Your task to perform on an android device: open app "Venmo" Image 0: 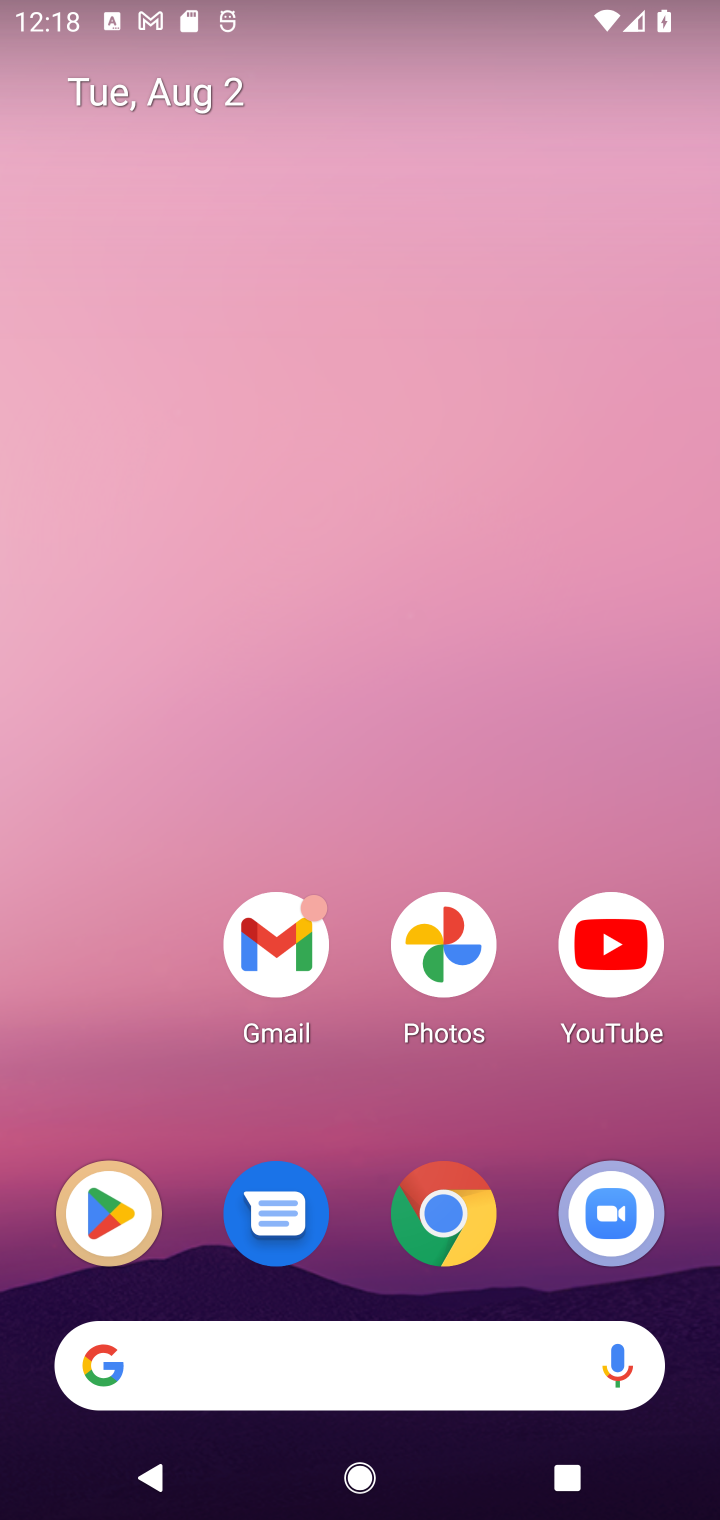
Step 0: click (88, 1208)
Your task to perform on an android device: open app "Venmo" Image 1: 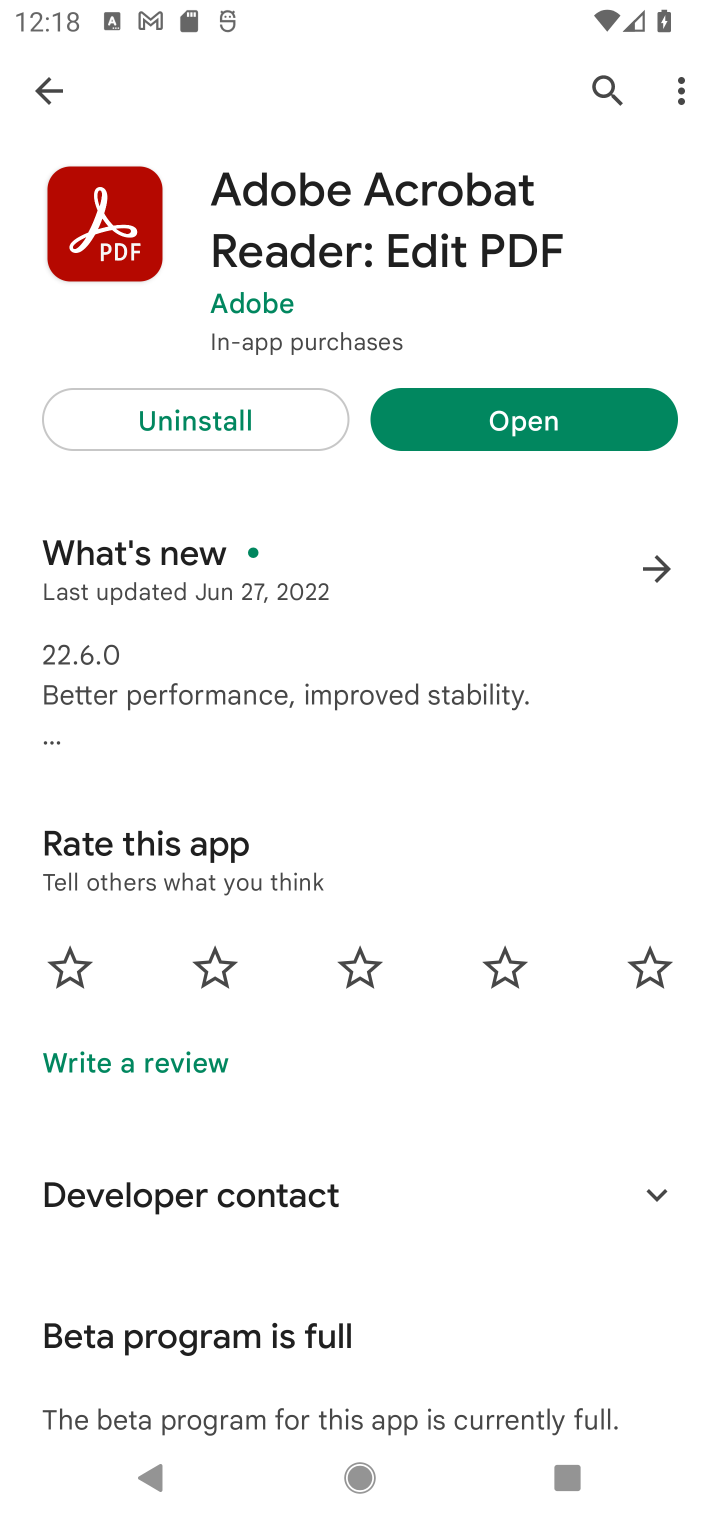
Step 1: click (52, 79)
Your task to perform on an android device: open app "Venmo" Image 2: 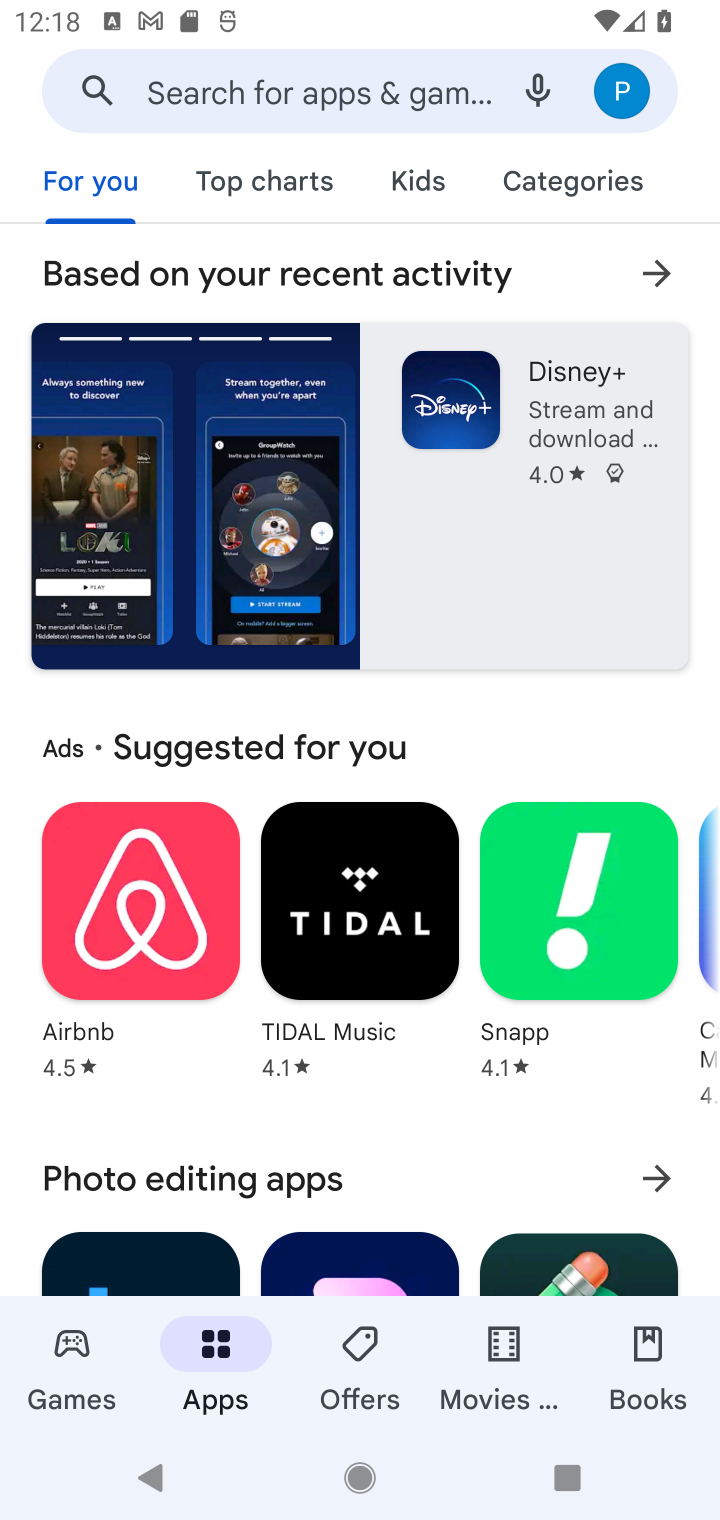
Step 2: click (270, 90)
Your task to perform on an android device: open app "Venmo" Image 3: 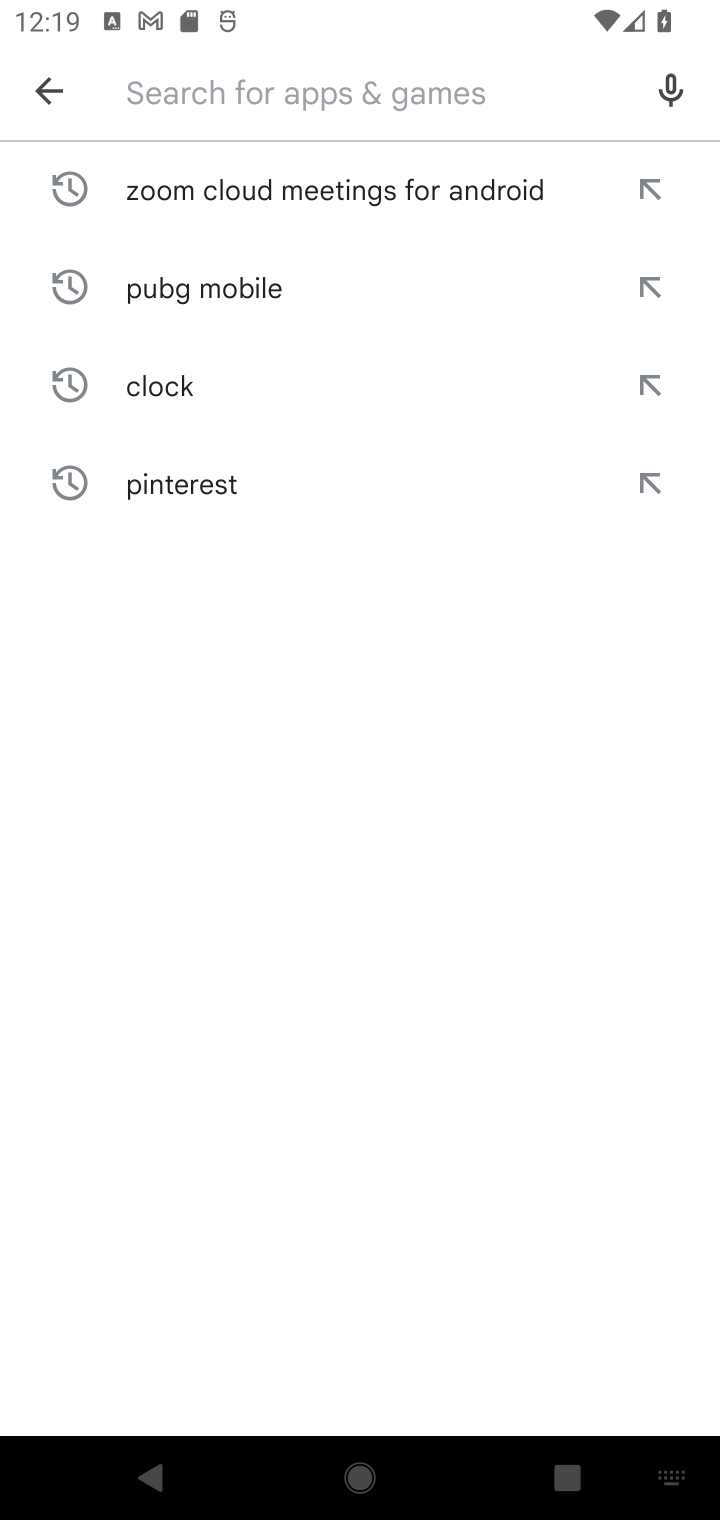
Step 3: type "Venmo"
Your task to perform on an android device: open app "Venmo" Image 4: 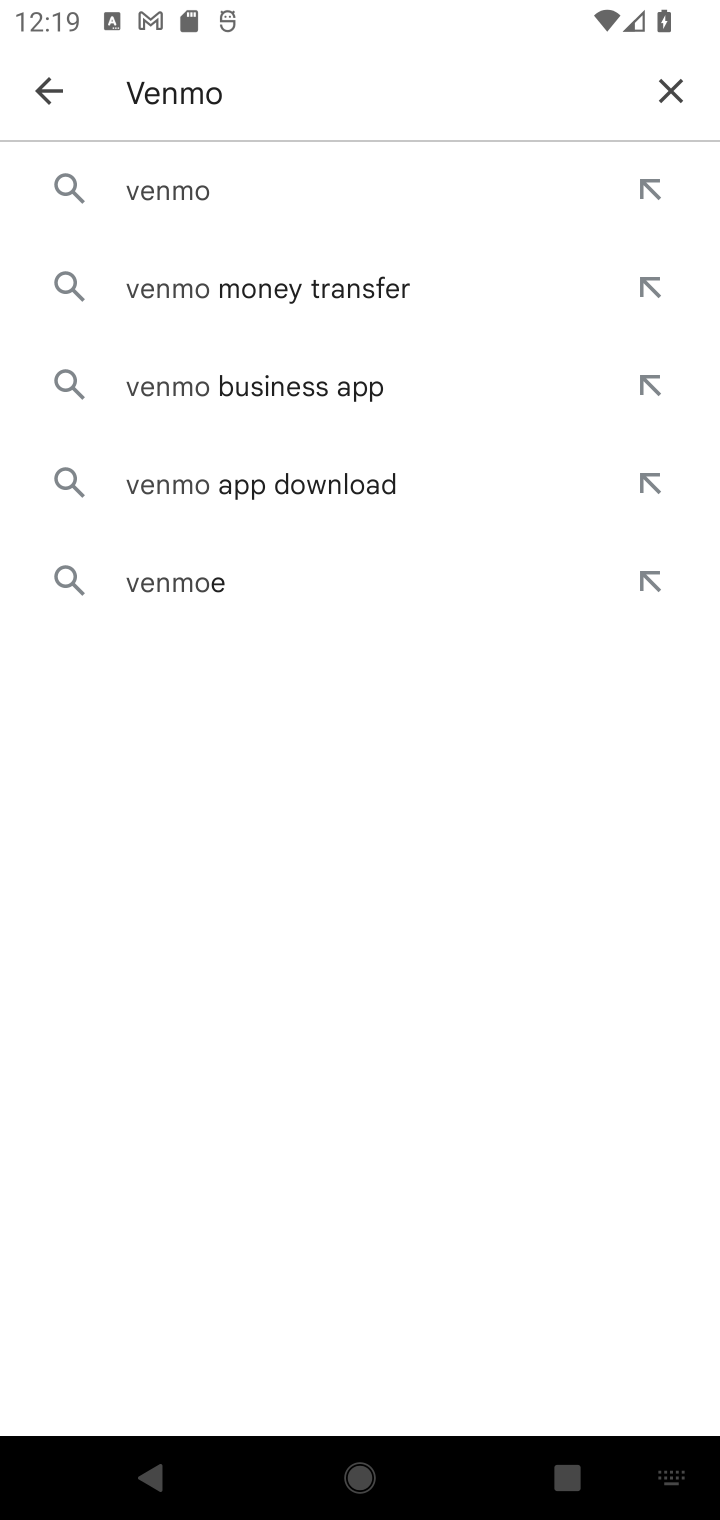
Step 4: click (177, 199)
Your task to perform on an android device: open app "Venmo" Image 5: 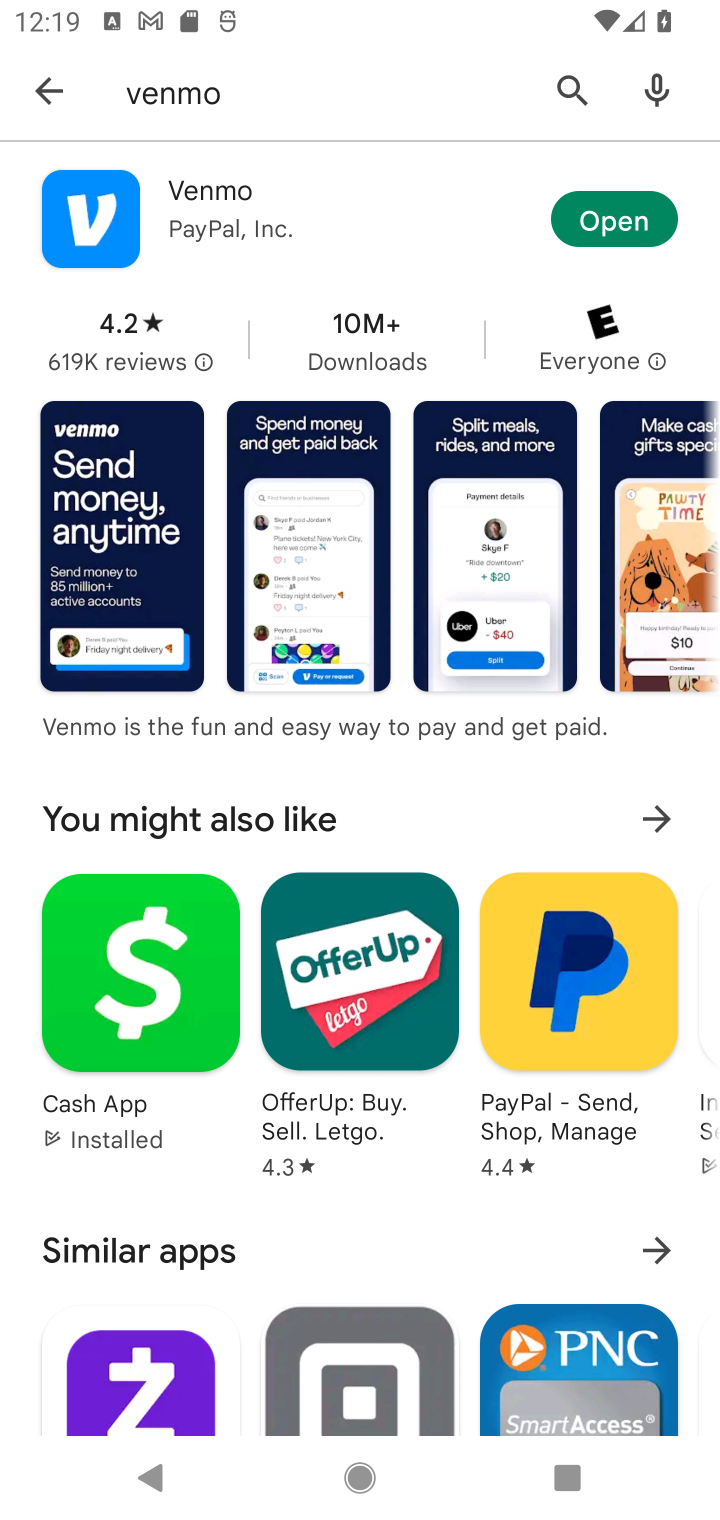
Step 5: click (641, 208)
Your task to perform on an android device: open app "Venmo" Image 6: 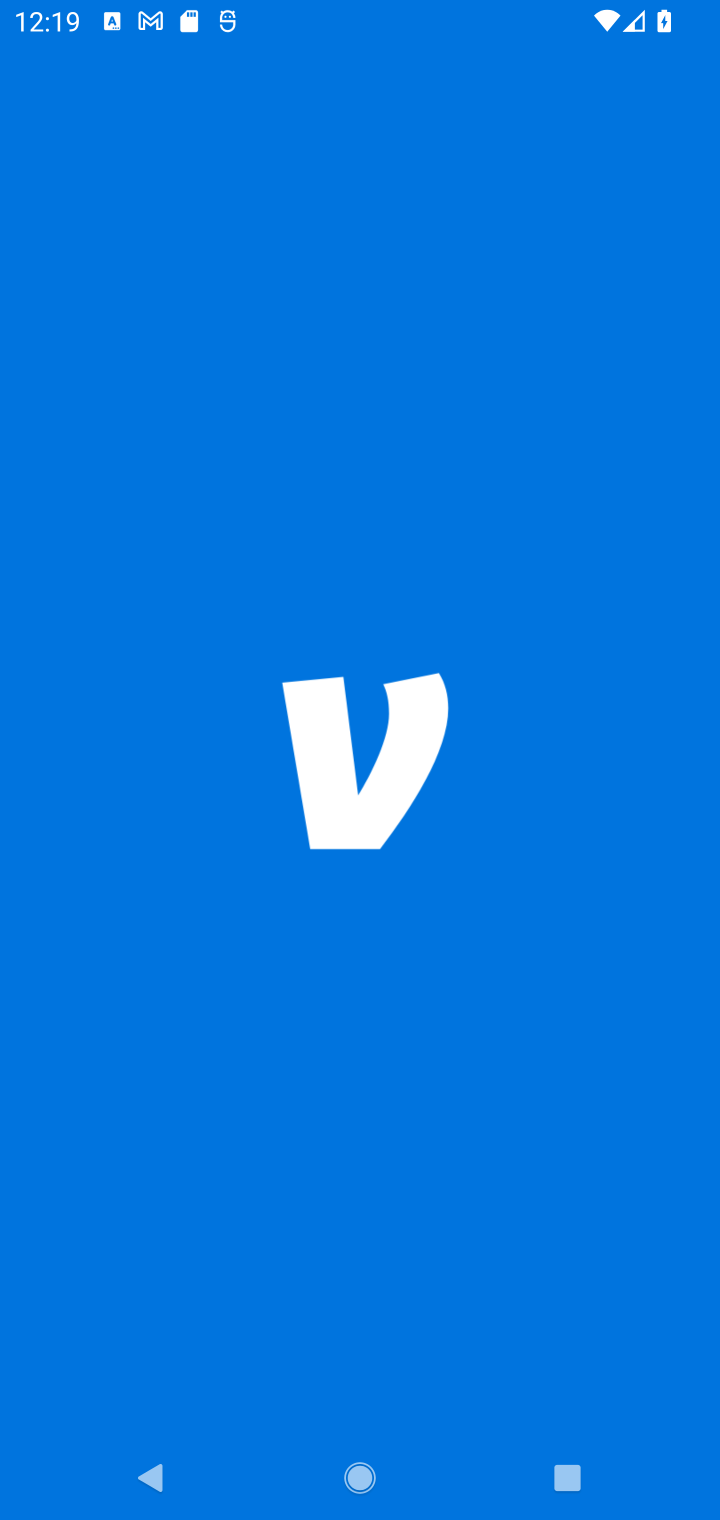
Step 6: task complete